Your task to perform on an android device: Go to display settings Image 0: 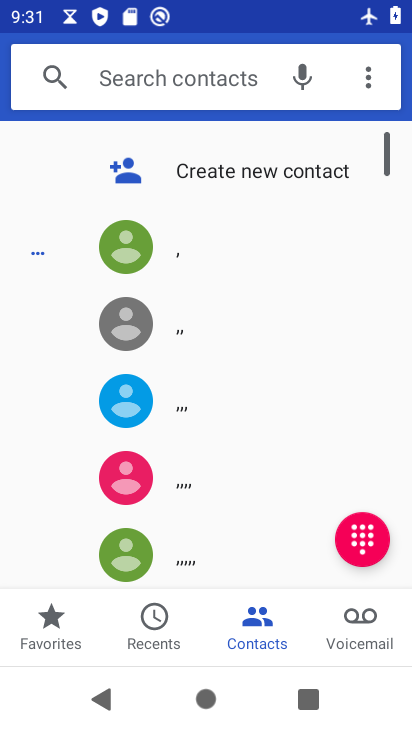
Step 0: press home button
Your task to perform on an android device: Go to display settings Image 1: 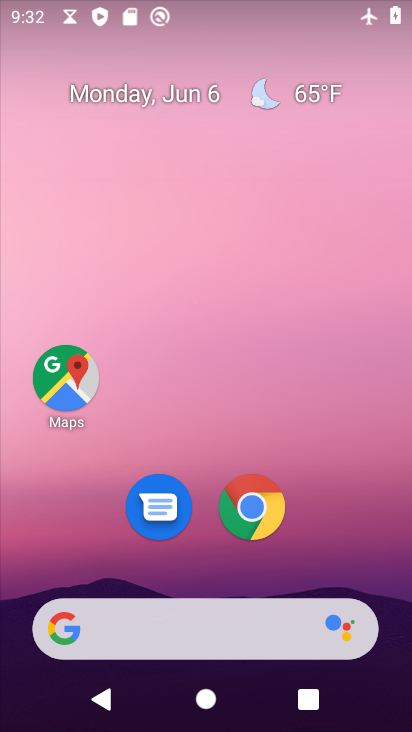
Step 1: drag from (331, 573) to (331, 210)
Your task to perform on an android device: Go to display settings Image 2: 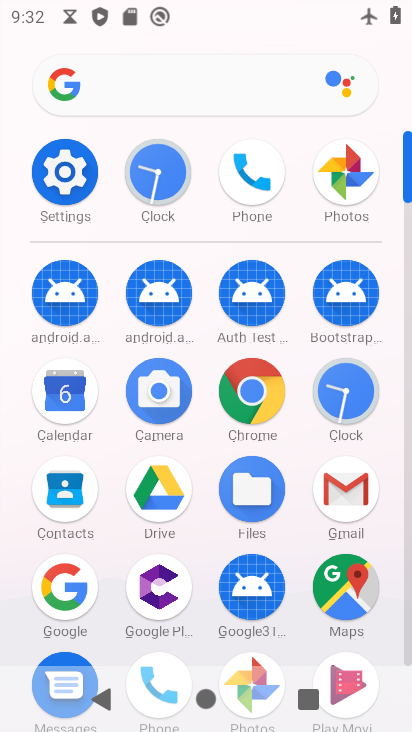
Step 2: click (58, 181)
Your task to perform on an android device: Go to display settings Image 3: 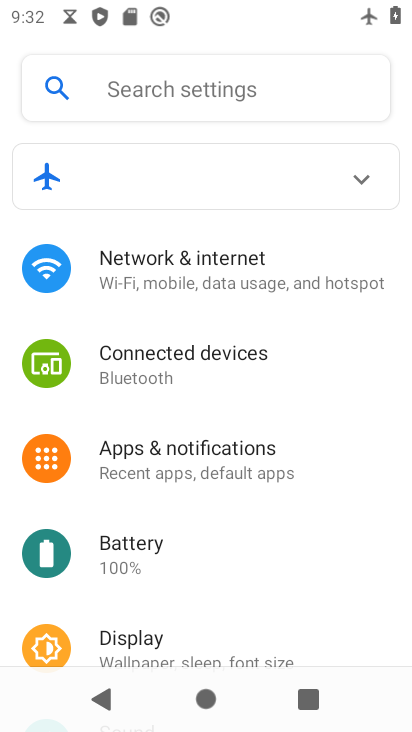
Step 3: click (167, 640)
Your task to perform on an android device: Go to display settings Image 4: 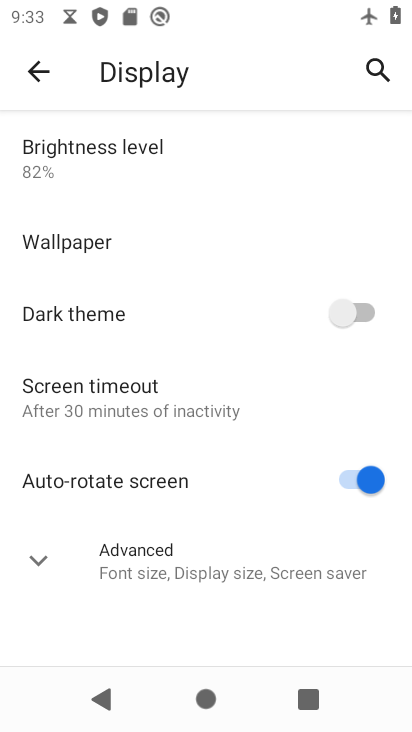
Step 4: task complete